Your task to perform on an android device: show emergency info Image 0: 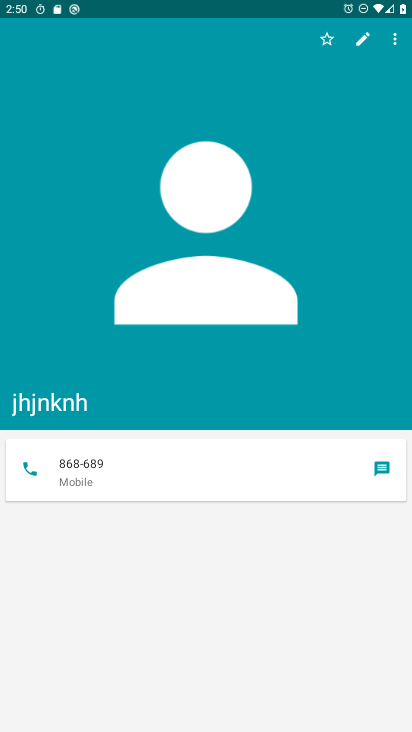
Step 0: drag from (241, 542) to (250, 238)
Your task to perform on an android device: show emergency info Image 1: 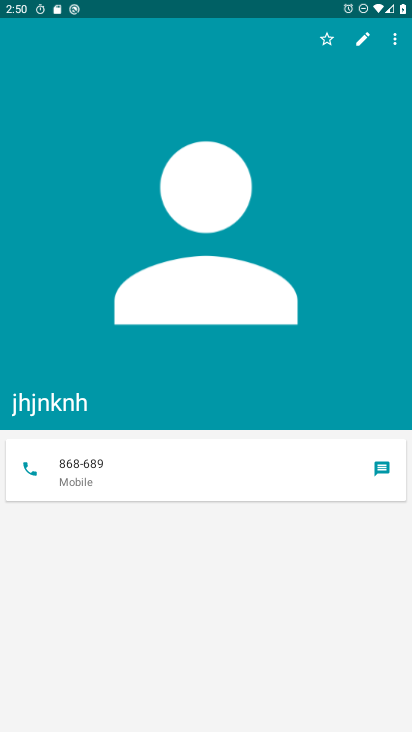
Step 1: drag from (214, 665) to (341, 423)
Your task to perform on an android device: show emergency info Image 2: 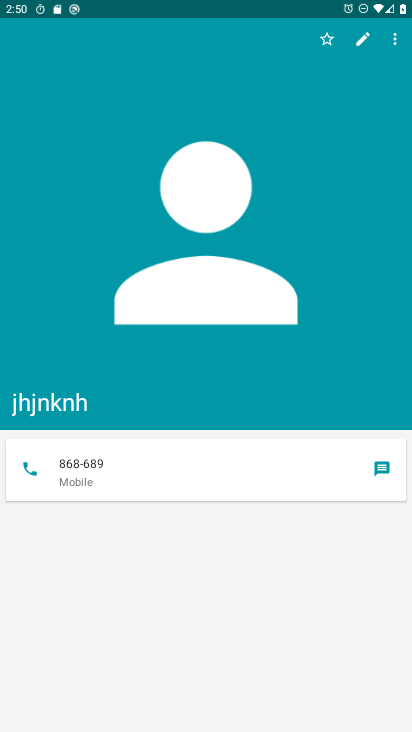
Step 2: press home button
Your task to perform on an android device: show emergency info Image 3: 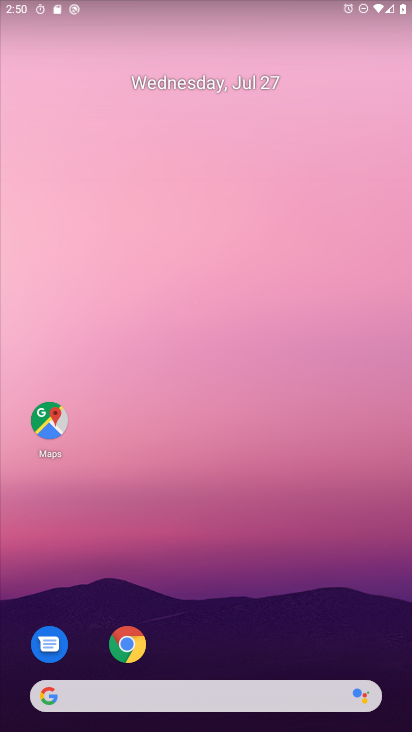
Step 3: drag from (218, 666) to (318, 15)
Your task to perform on an android device: show emergency info Image 4: 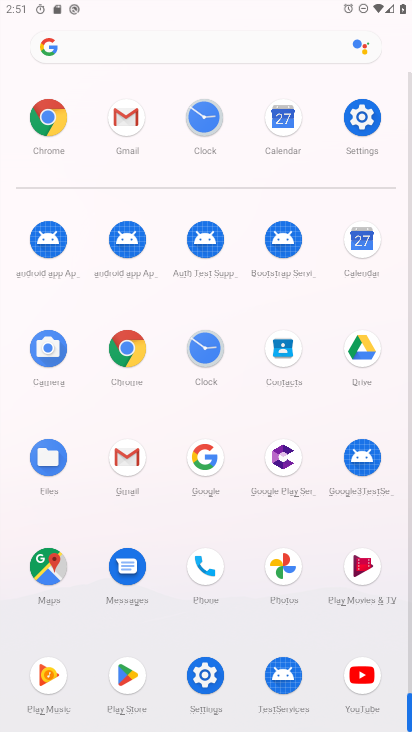
Step 4: click (362, 115)
Your task to perform on an android device: show emergency info Image 5: 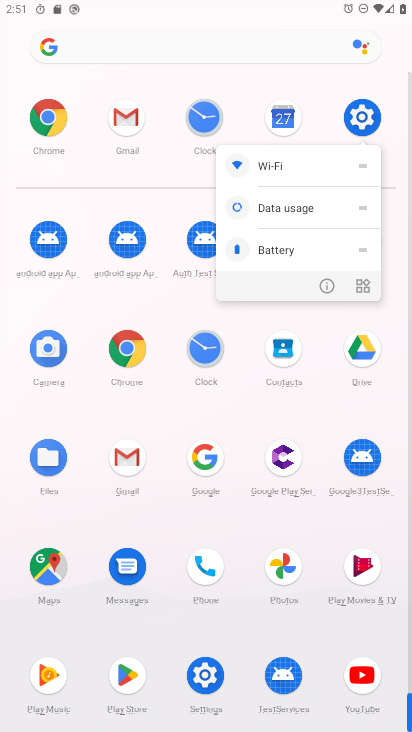
Step 5: click (319, 277)
Your task to perform on an android device: show emergency info Image 6: 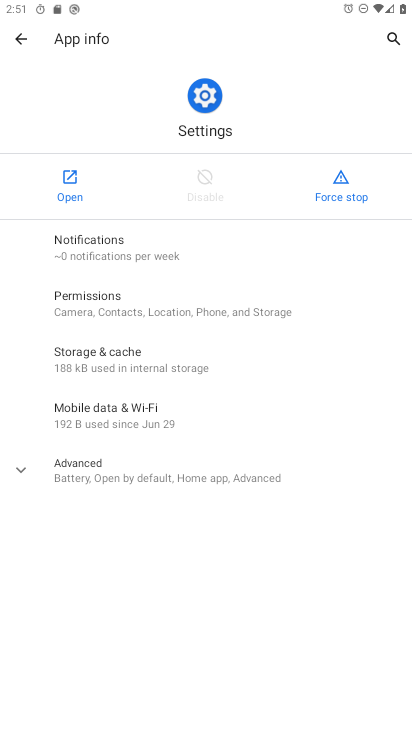
Step 6: click (68, 183)
Your task to perform on an android device: show emergency info Image 7: 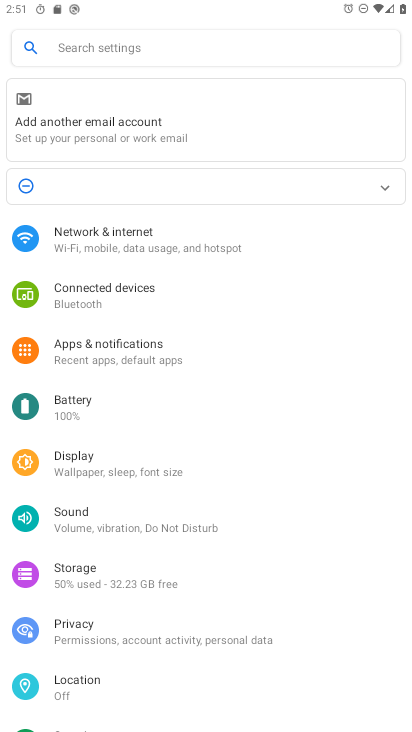
Step 7: drag from (175, 651) to (300, 3)
Your task to perform on an android device: show emergency info Image 8: 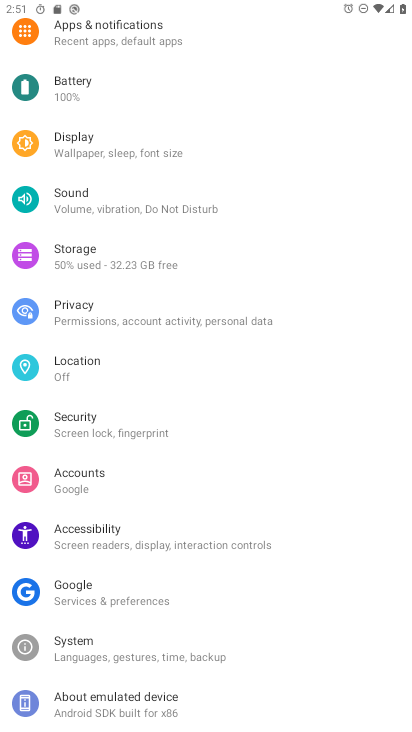
Step 8: click (137, 698)
Your task to perform on an android device: show emergency info Image 9: 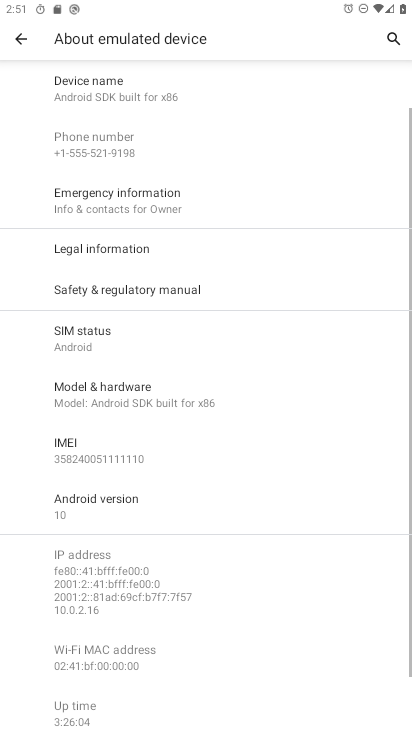
Step 9: click (136, 218)
Your task to perform on an android device: show emergency info Image 10: 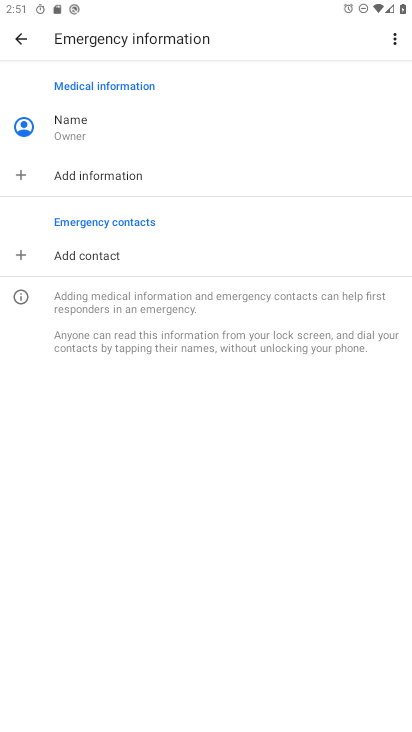
Step 10: task complete